Your task to perform on an android device: Is it going to rain tomorrow? Image 0: 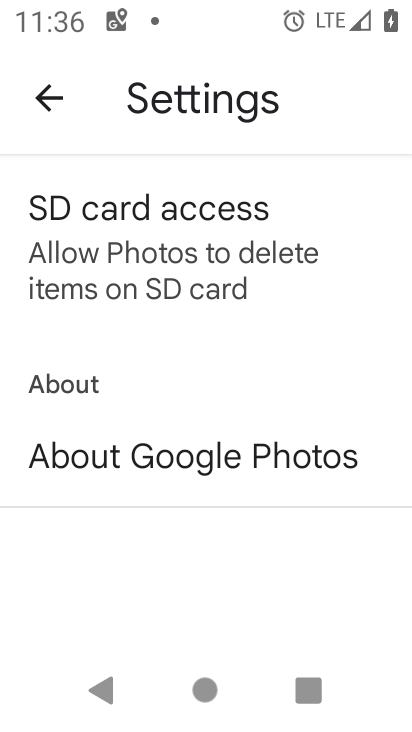
Step 0: drag from (253, 532) to (314, 270)
Your task to perform on an android device: Is it going to rain tomorrow? Image 1: 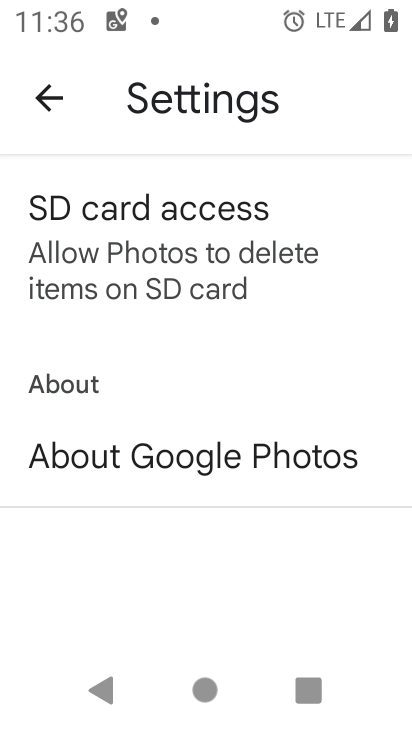
Step 1: press home button
Your task to perform on an android device: Is it going to rain tomorrow? Image 2: 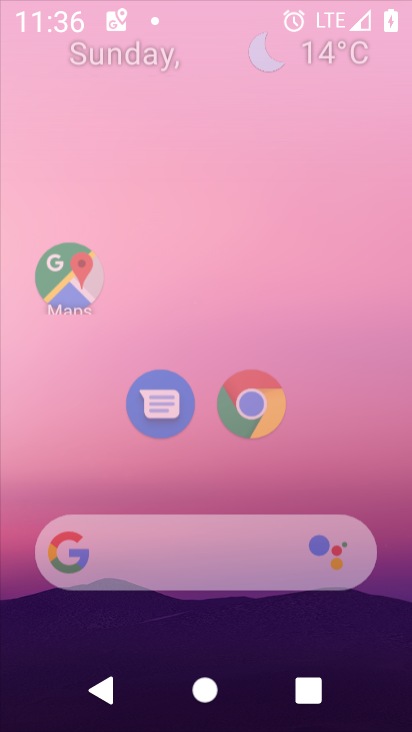
Step 2: drag from (221, 575) to (269, 293)
Your task to perform on an android device: Is it going to rain tomorrow? Image 3: 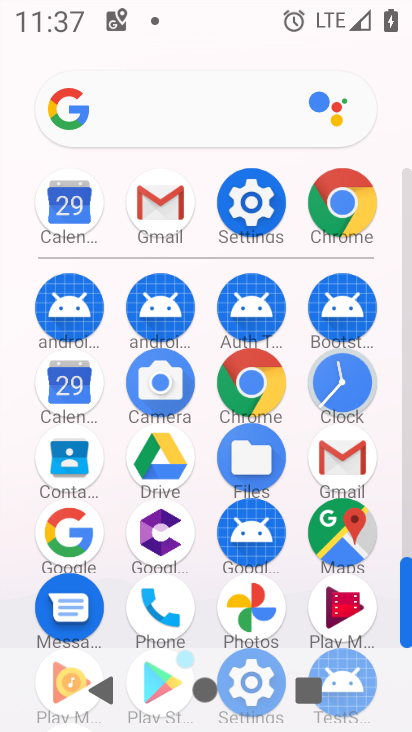
Step 3: click (139, 102)
Your task to perform on an android device: Is it going to rain tomorrow? Image 4: 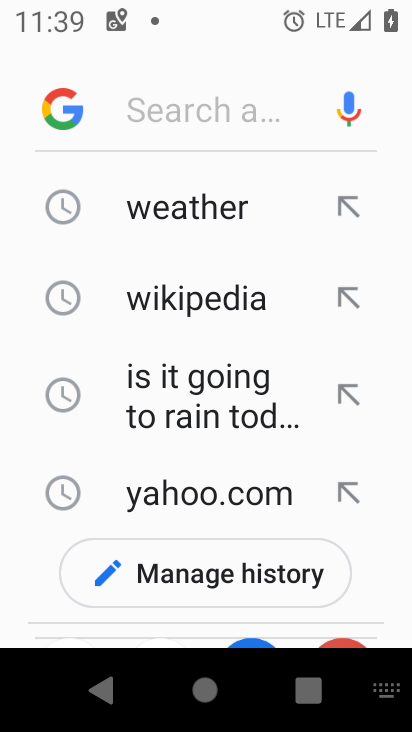
Step 4: type " rain tomorrow?"
Your task to perform on an android device: Is it going to rain tomorrow? Image 5: 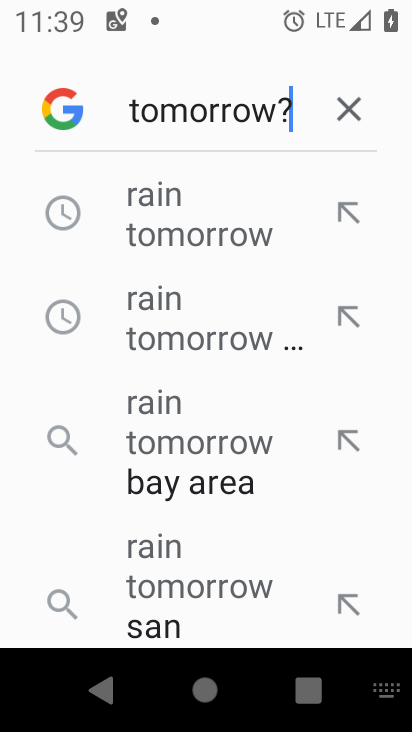
Step 5: type ""
Your task to perform on an android device: Is it going to rain tomorrow? Image 6: 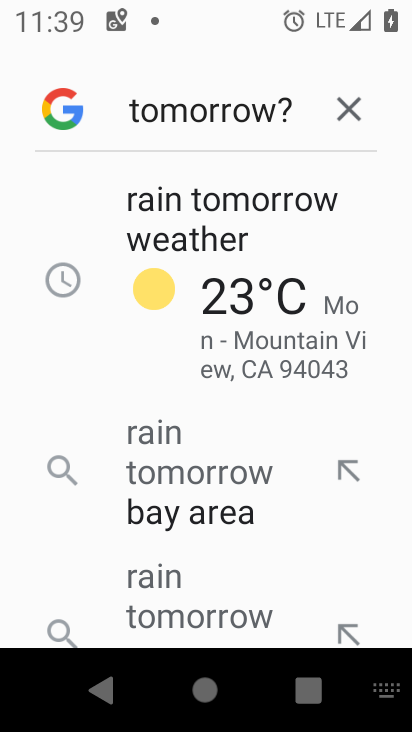
Step 6: click (266, 239)
Your task to perform on an android device: Is it going to rain tomorrow? Image 7: 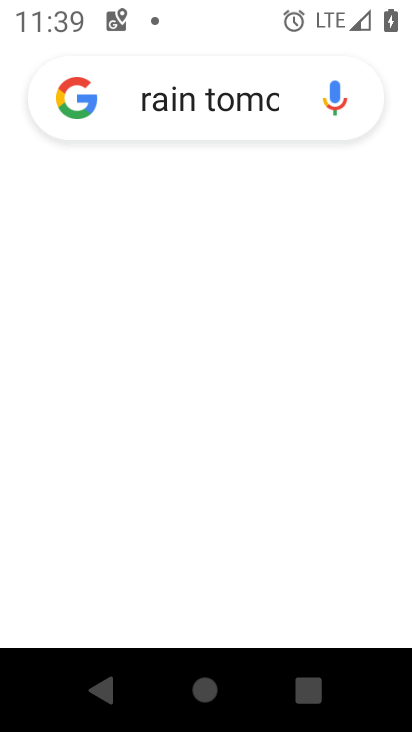
Step 7: task complete